Your task to perform on an android device: turn on improve location accuracy Image 0: 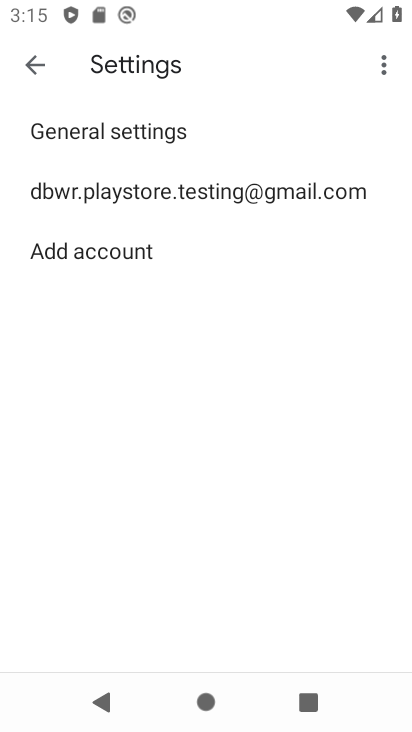
Step 0: press home button
Your task to perform on an android device: turn on improve location accuracy Image 1: 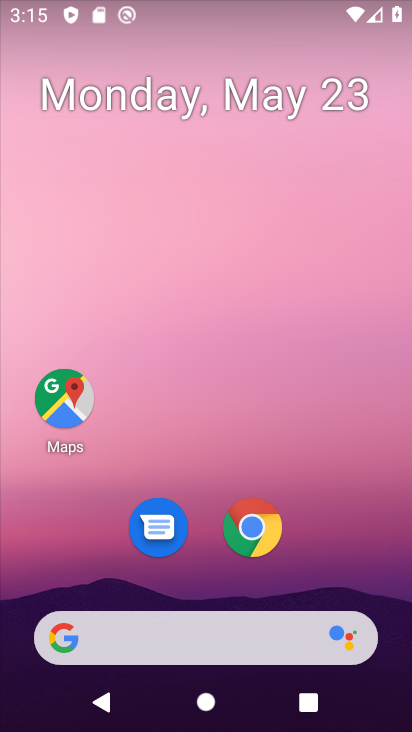
Step 1: drag from (304, 567) to (234, 103)
Your task to perform on an android device: turn on improve location accuracy Image 2: 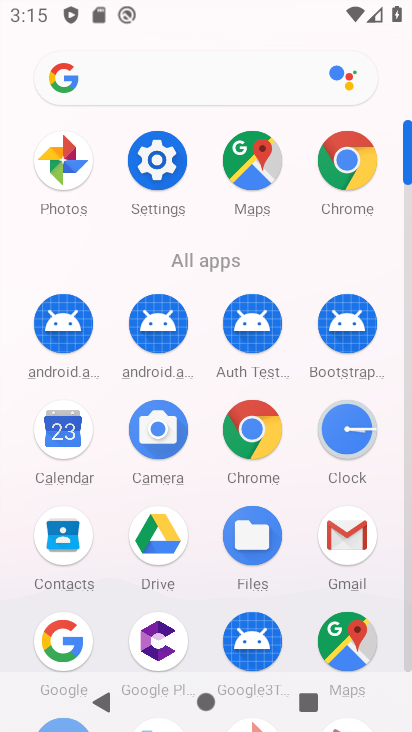
Step 2: click (155, 155)
Your task to perform on an android device: turn on improve location accuracy Image 3: 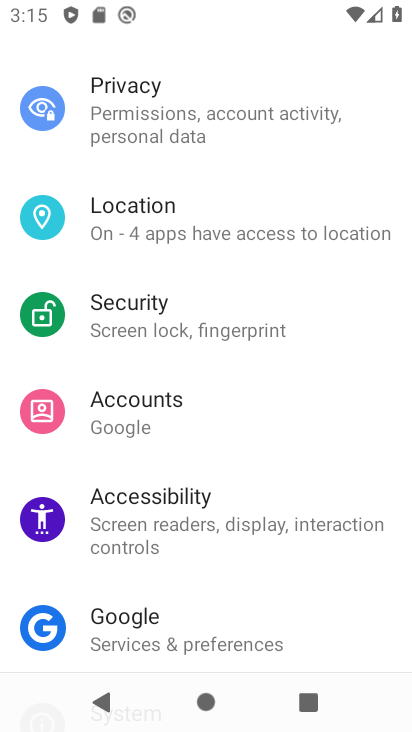
Step 3: click (181, 233)
Your task to perform on an android device: turn on improve location accuracy Image 4: 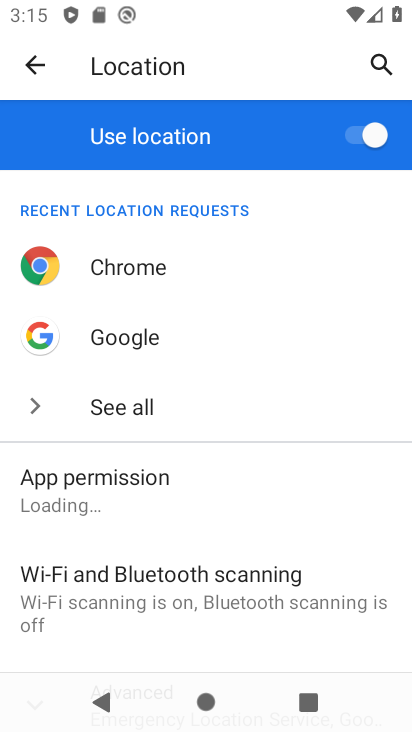
Step 4: drag from (226, 633) to (230, 226)
Your task to perform on an android device: turn on improve location accuracy Image 5: 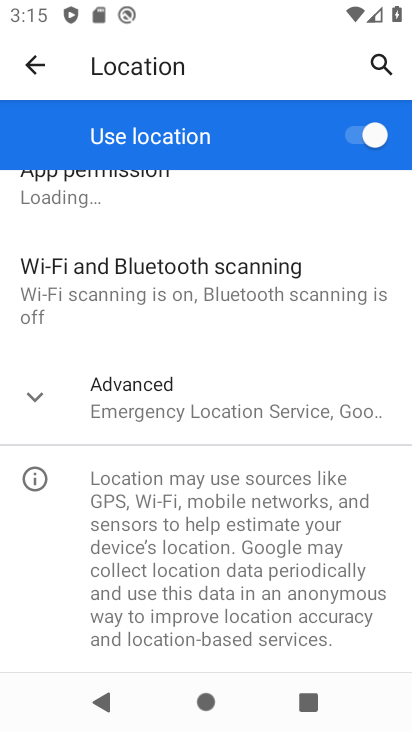
Step 5: click (147, 418)
Your task to perform on an android device: turn on improve location accuracy Image 6: 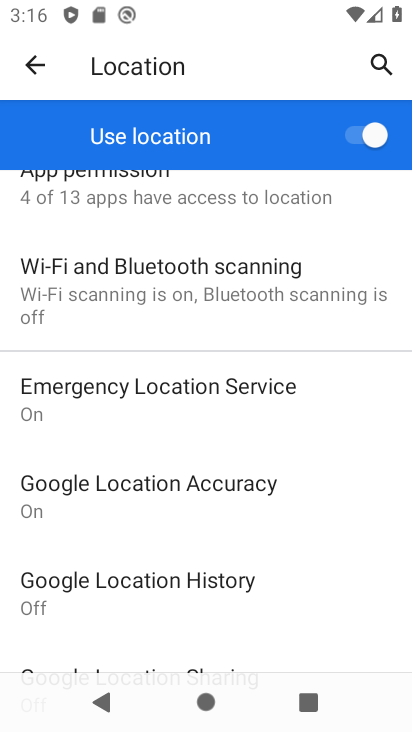
Step 6: click (179, 474)
Your task to perform on an android device: turn on improve location accuracy Image 7: 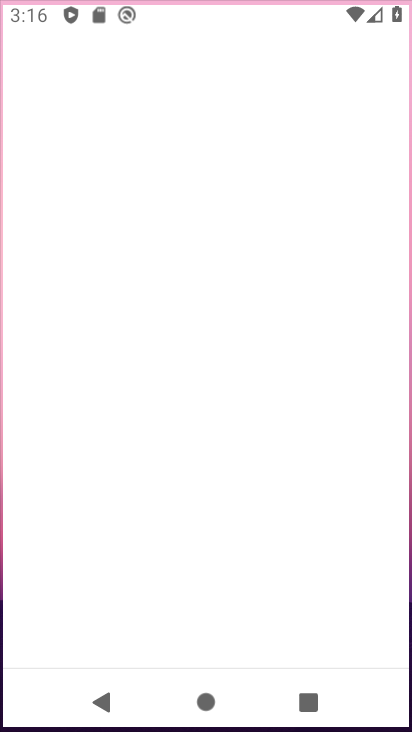
Step 7: click (207, 495)
Your task to perform on an android device: turn on improve location accuracy Image 8: 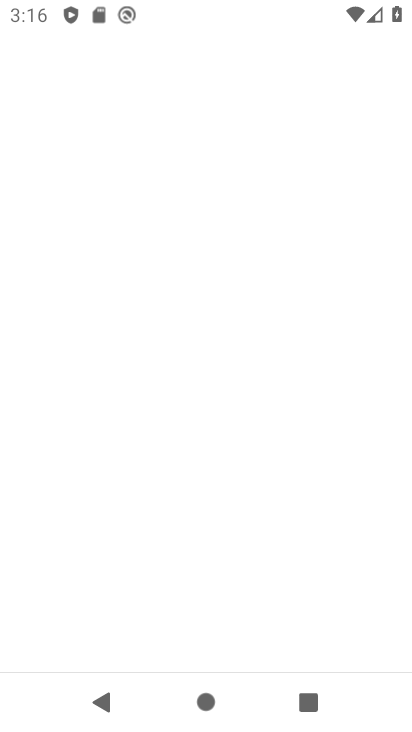
Step 8: click (269, 496)
Your task to perform on an android device: turn on improve location accuracy Image 9: 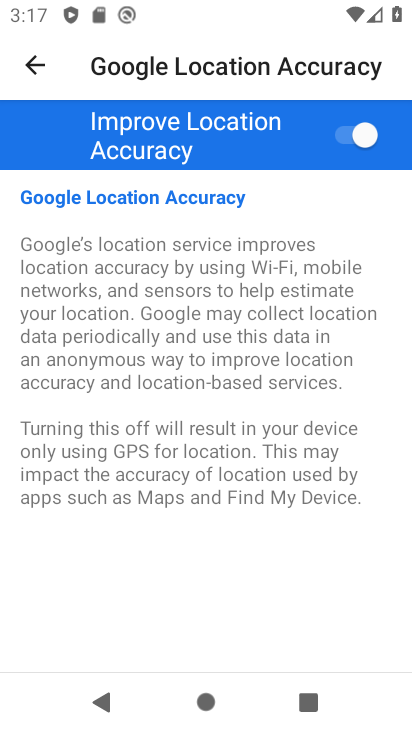
Step 9: task complete